Your task to perform on an android device: Go to settings Image 0: 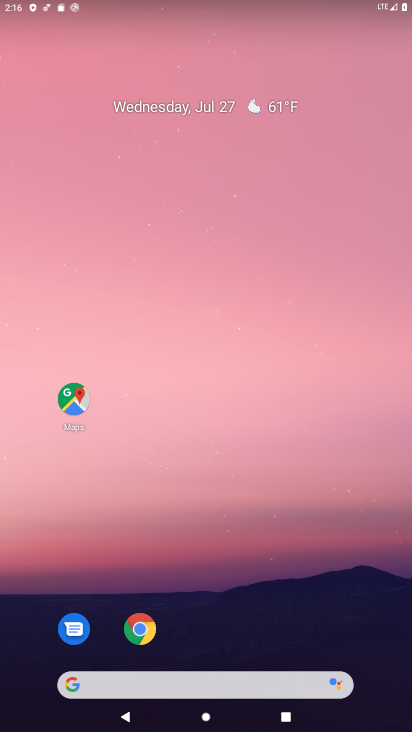
Step 0: drag from (195, 681) to (236, 118)
Your task to perform on an android device: Go to settings Image 1: 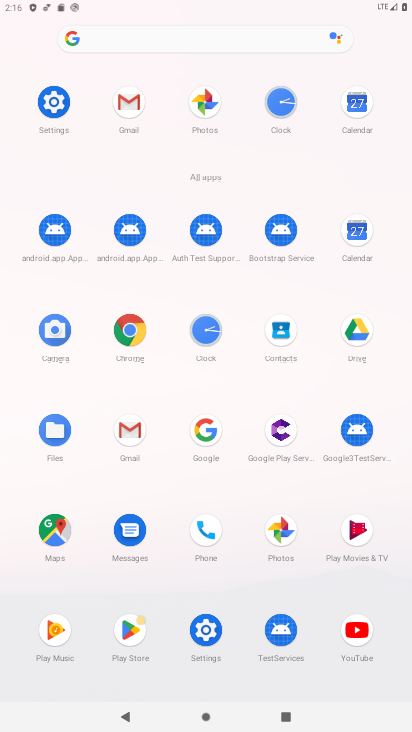
Step 1: click (55, 99)
Your task to perform on an android device: Go to settings Image 2: 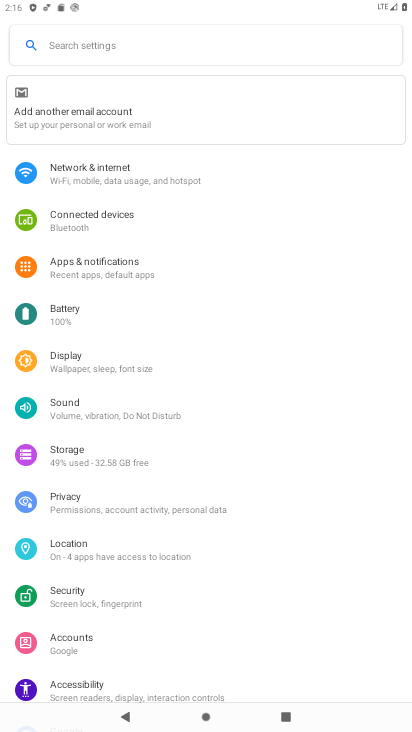
Step 2: task complete